Your task to perform on an android device: turn off location history Image 0: 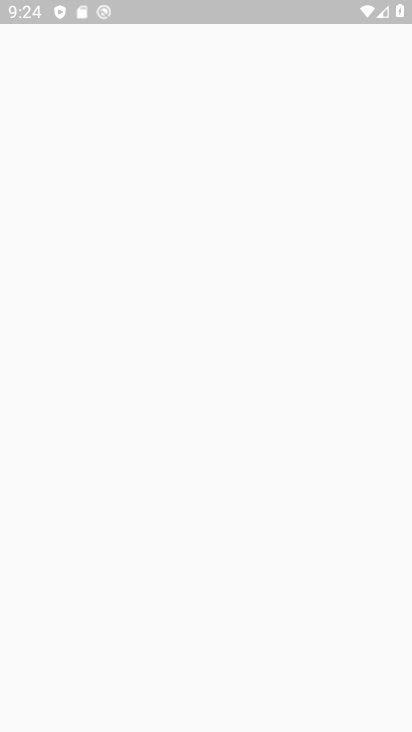
Step 0: press home button
Your task to perform on an android device: turn off location history Image 1: 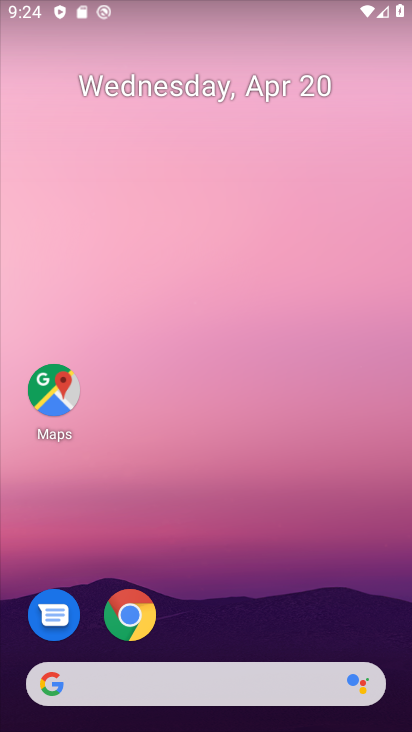
Step 1: drag from (269, 503) to (293, 160)
Your task to perform on an android device: turn off location history Image 2: 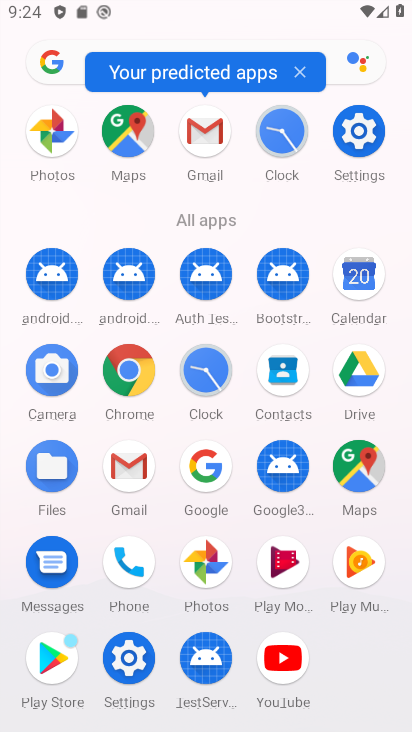
Step 2: click (126, 125)
Your task to perform on an android device: turn off location history Image 3: 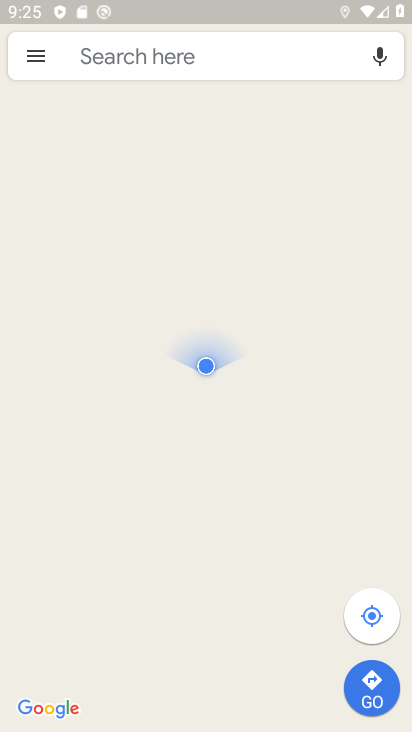
Step 3: click (42, 56)
Your task to perform on an android device: turn off location history Image 4: 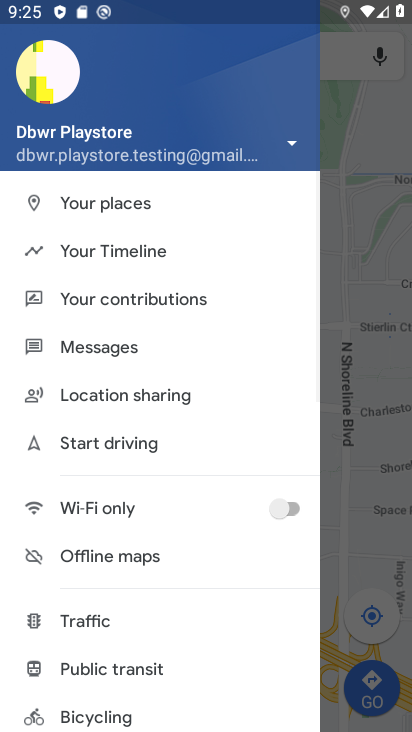
Step 4: click (112, 239)
Your task to perform on an android device: turn off location history Image 5: 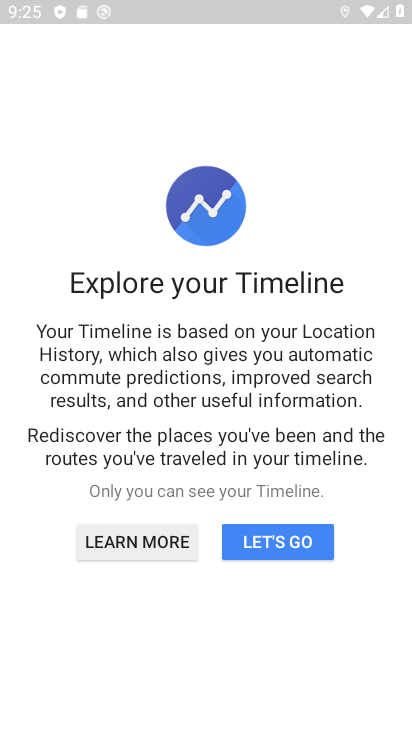
Step 5: click (254, 552)
Your task to perform on an android device: turn off location history Image 6: 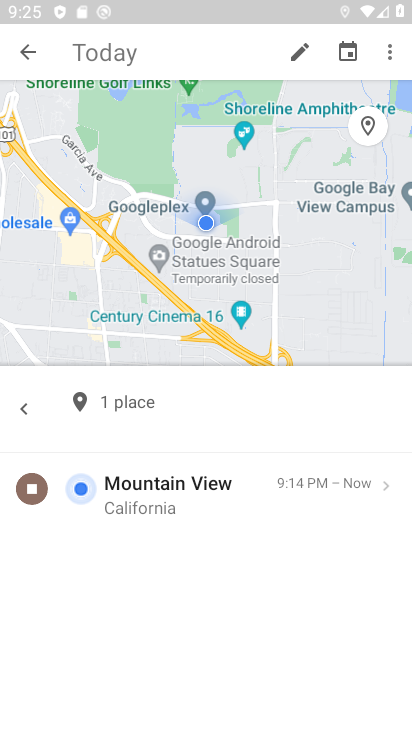
Step 6: click (387, 57)
Your task to perform on an android device: turn off location history Image 7: 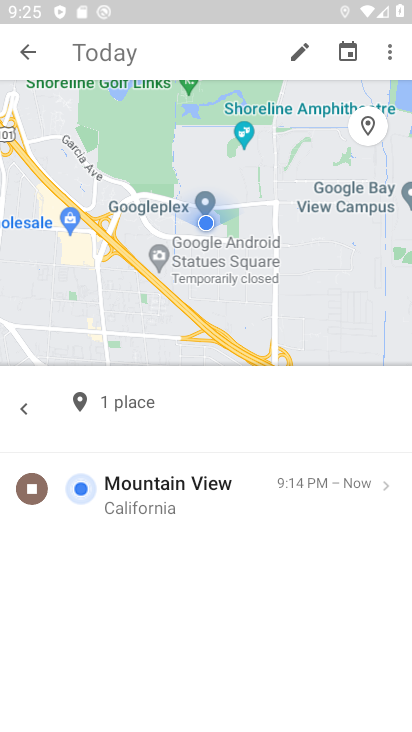
Step 7: click (386, 51)
Your task to perform on an android device: turn off location history Image 8: 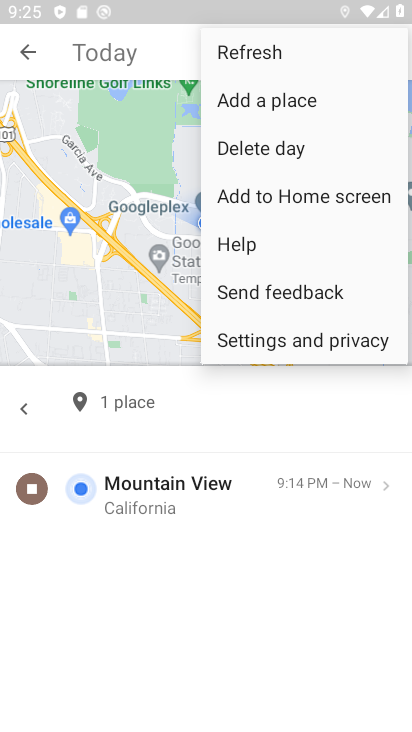
Step 8: click (353, 333)
Your task to perform on an android device: turn off location history Image 9: 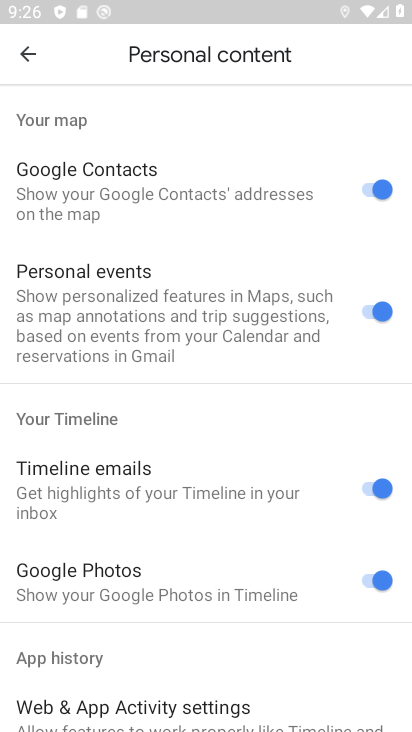
Step 9: drag from (211, 613) to (186, 141)
Your task to perform on an android device: turn off location history Image 10: 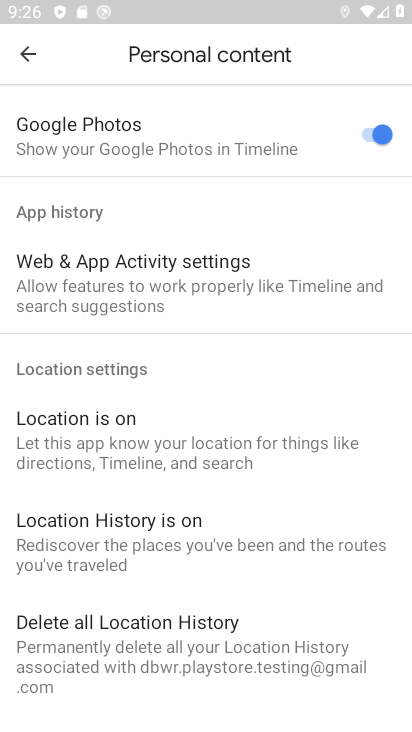
Step 10: drag from (282, 573) to (265, 420)
Your task to perform on an android device: turn off location history Image 11: 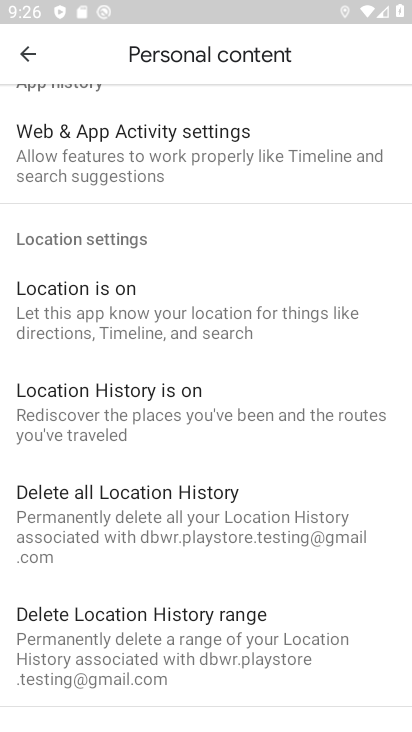
Step 11: click (127, 388)
Your task to perform on an android device: turn off location history Image 12: 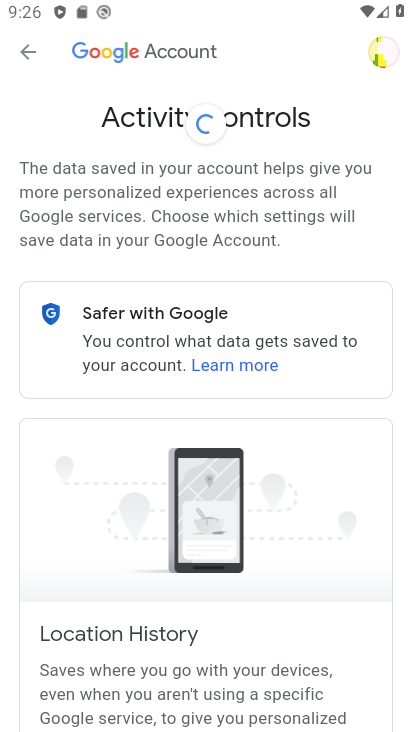
Step 12: task complete